Your task to perform on an android device: Open Google Maps Image 0: 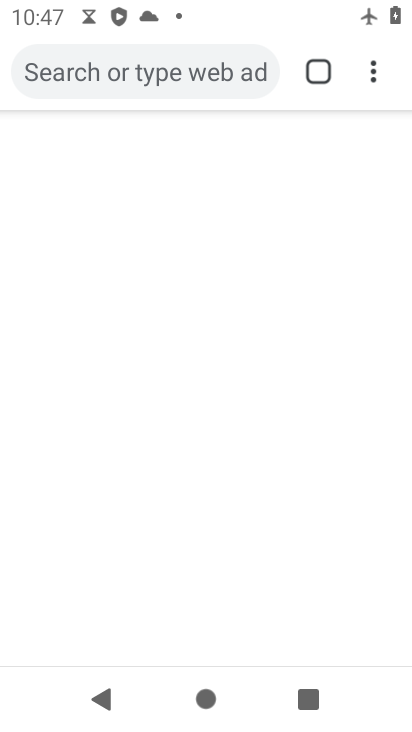
Step 0: drag from (342, 445) to (342, 276)
Your task to perform on an android device: Open Google Maps Image 1: 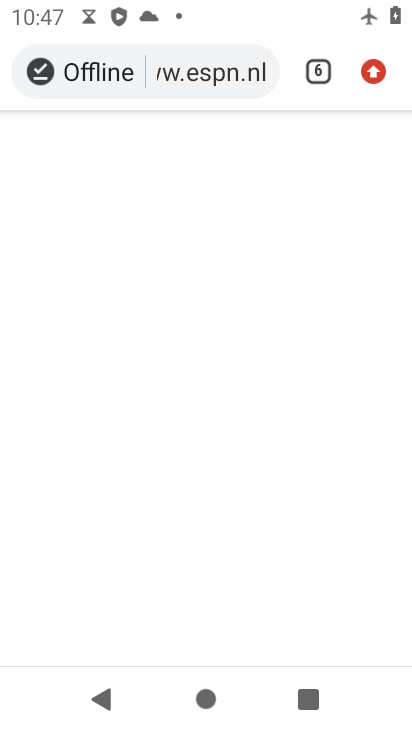
Step 1: press home button
Your task to perform on an android device: Open Google Maps Image 2: 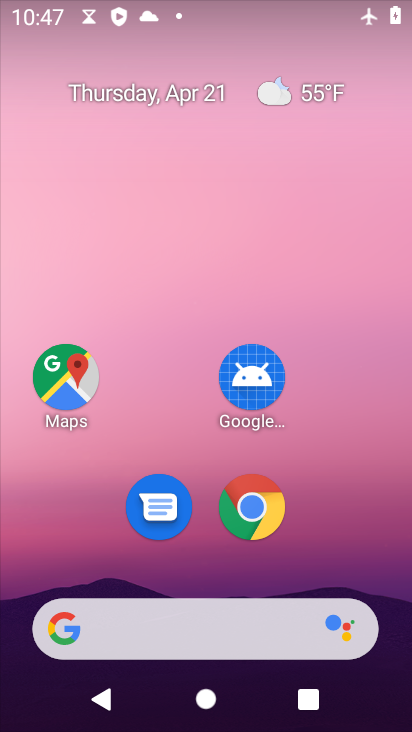
Step 2: click (74, 380)
Your task to perform on an android device: Open Google Maps Image 3: 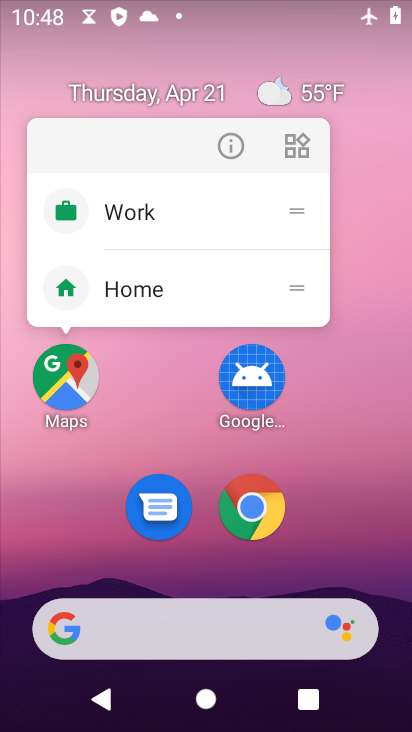
Step 3: click (78, 377)
Your task to perform on an android device: Open Google Maps Image 4: 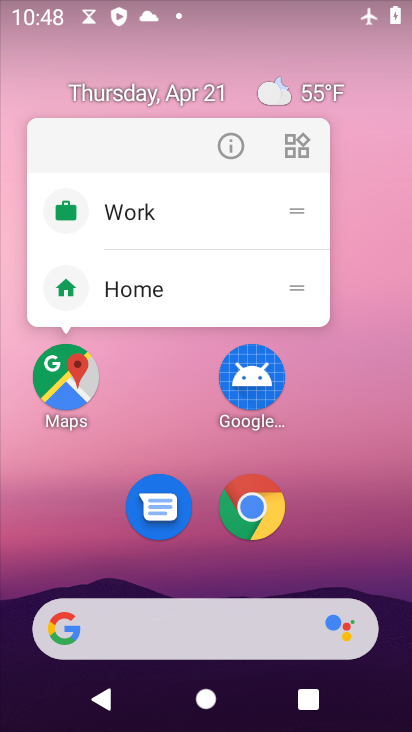
Step 4: click (72, 375)
Your task to perform on an android device: Open Google Maps Image 5: 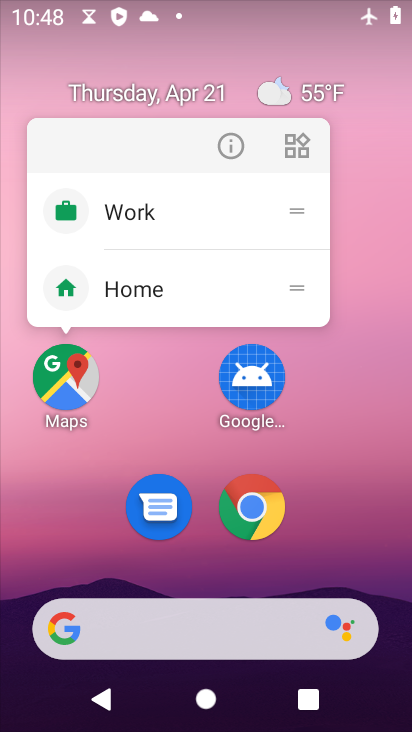
Step 5: click (70, 371)
Your task to perform on an android device: Open Google Maps Image 6: 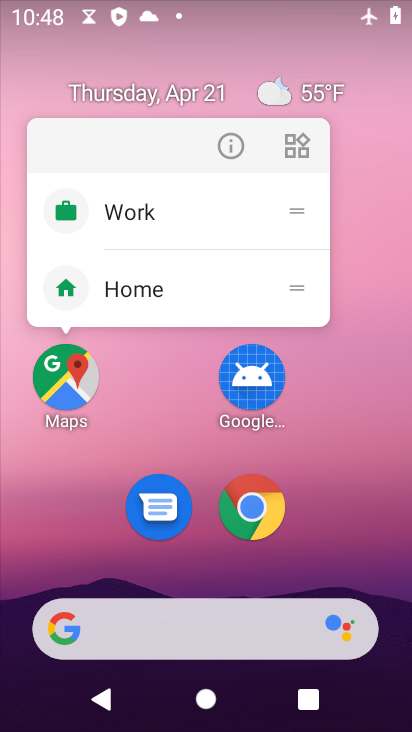
Step 6: click (61, 377)
Your task to perform on an android device: Open Google Maps Image 7: 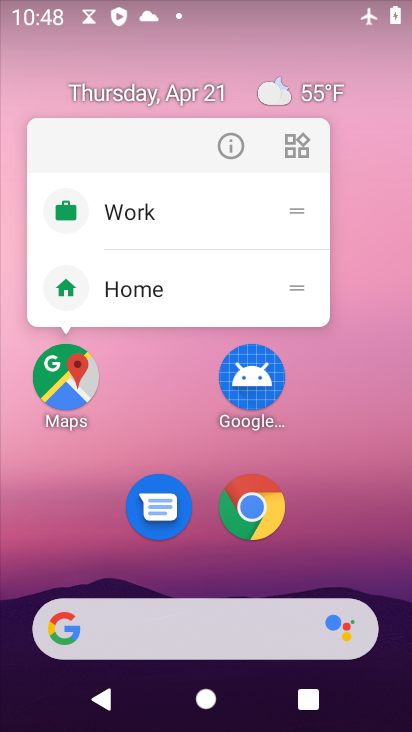
Step 7: click (69, 393)
Your task to perform on an android device: Open Google Maps Image 8: 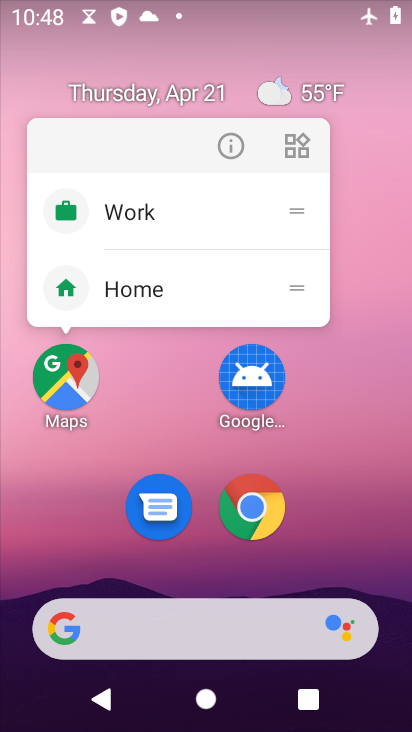
Step 8: click (67, 387)
Your task to perform on an android device: Open Google Maps Image 9: 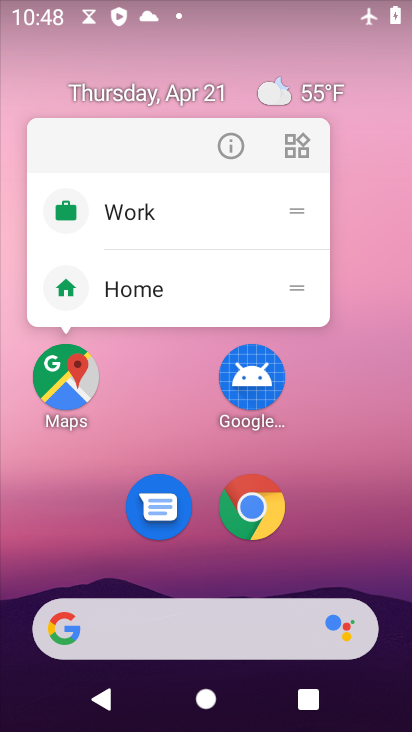
Step 9: click (65, 374)
Your task to perform on an android device: Open Google Maps Image 10: 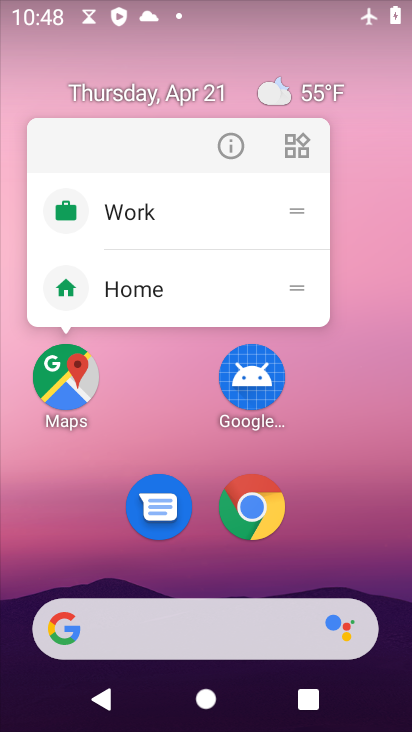
Step 10: drag from (220, 604) to (198, 153)
Your task to perform on an android device: Open Google Maps Image 11: 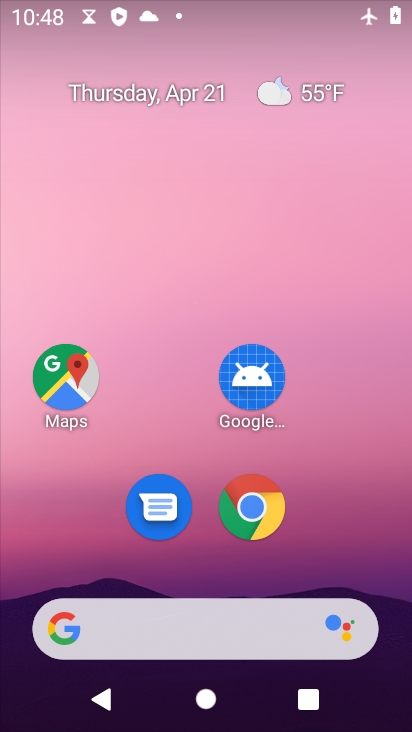
Step 11: drag from (222, 594) to (232, 181)
Your task to perform on an android device: Open Google Maps Image 12: 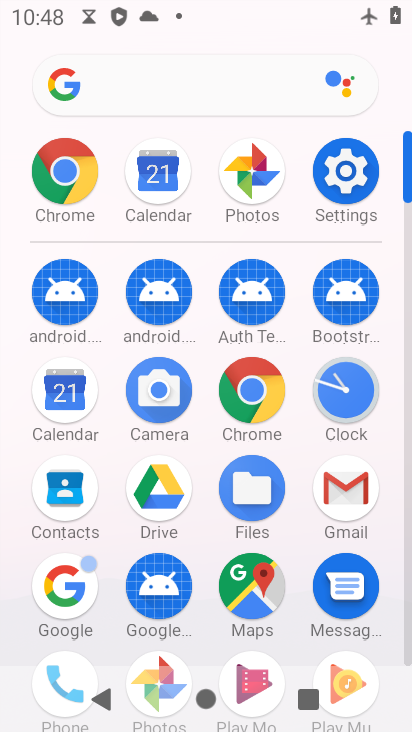
Step 12: click (245, 563)
Your task to perform on an android device: Open Google Maps Image 13: 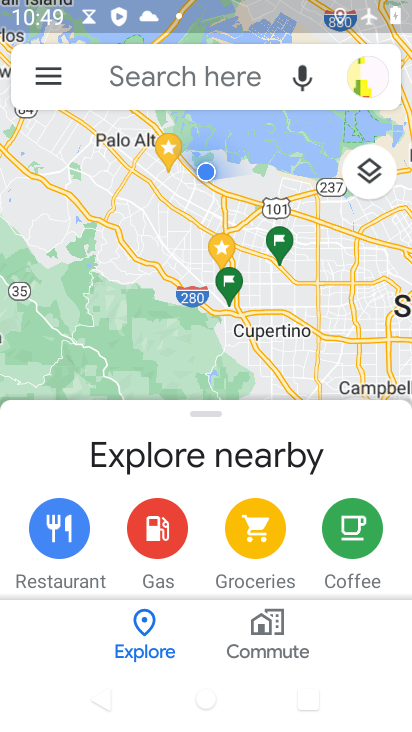
Step 13: task complete